Your task to perform on an android device: Show me recent news Image 0: 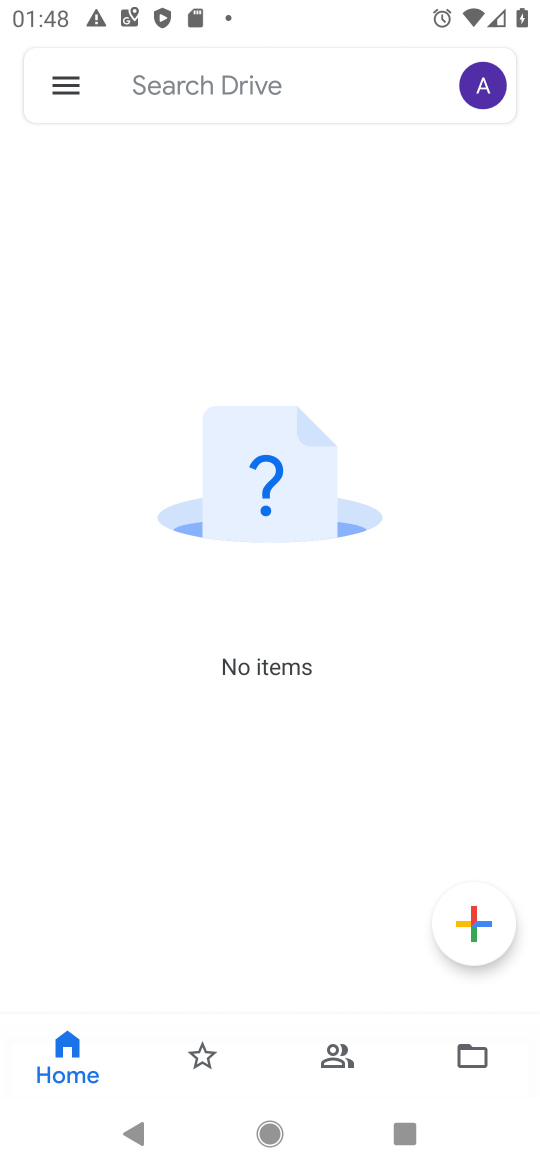
Step 0: press home button
Your task to perform on an android device: Show me recent news Image 1: 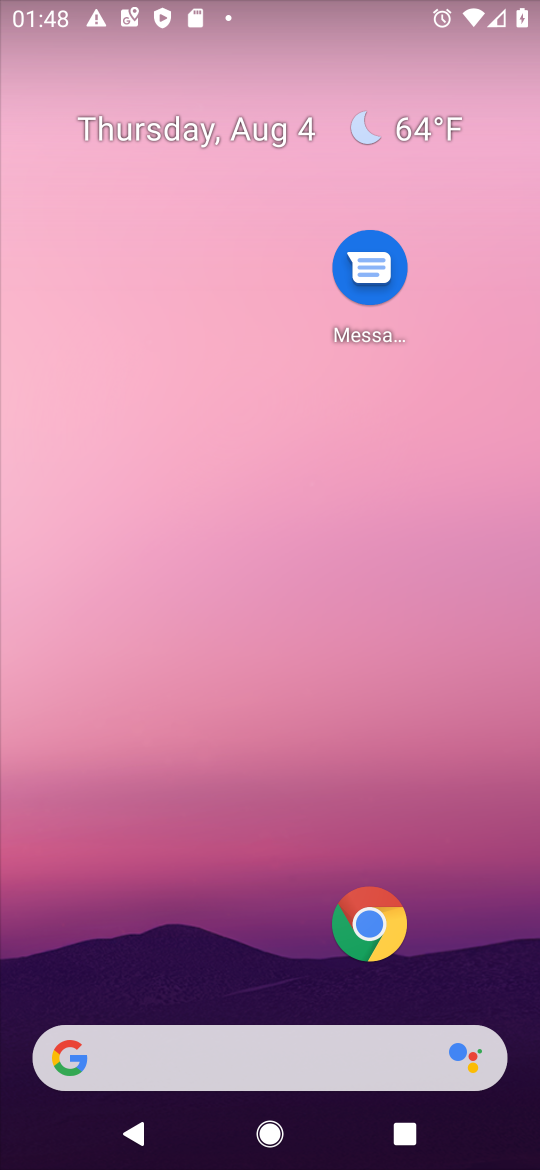
Step 1: click (124, 1041)
Your task to perform on an android device: Show me recent news Image 2: 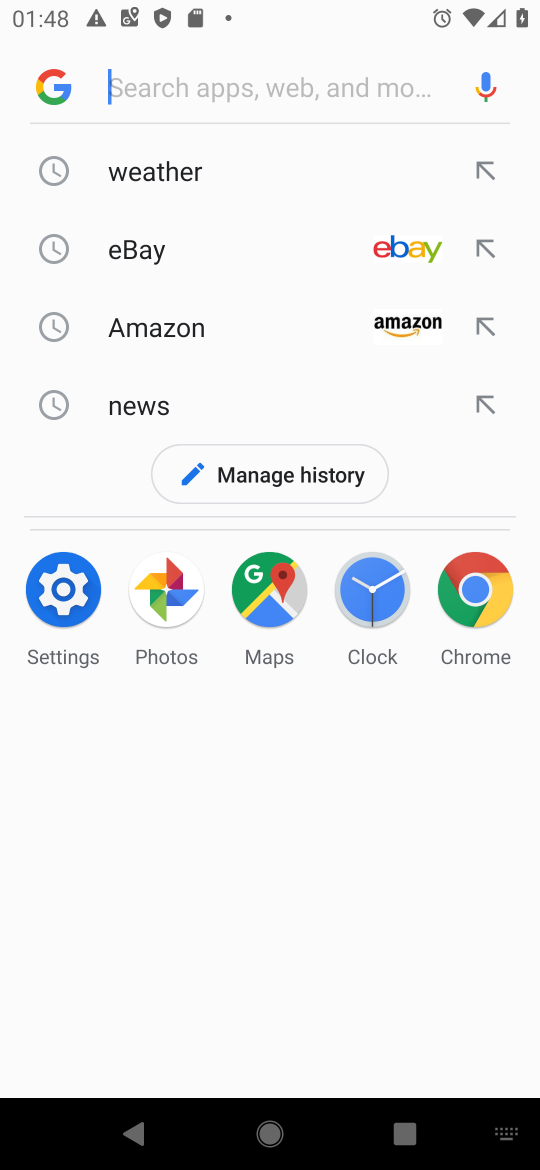
Step 2: type " recent news"
Your task to perform on an android device: Show me recent news Image 3: 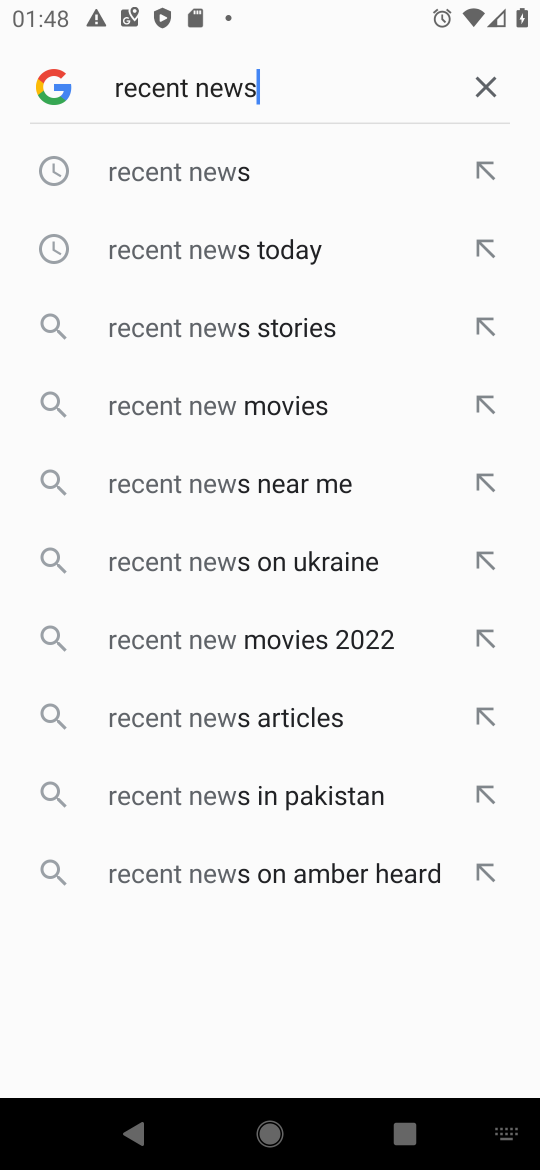
Step 3: type ""
Your task to perform on an android device: Show me recent news Image 4: 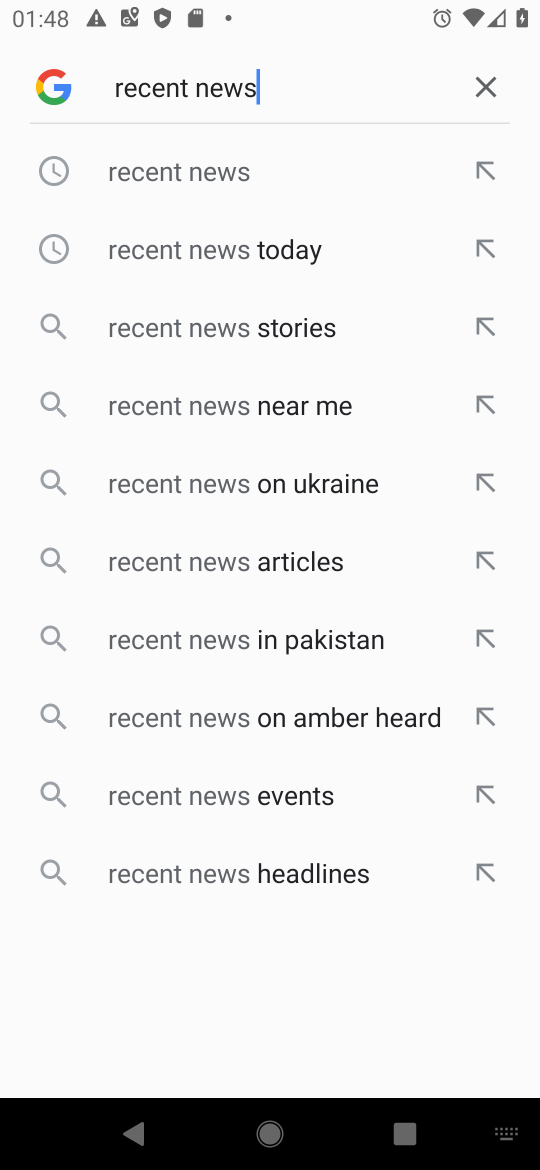
Step 4: click (144, 166)
Your task to perform on an android device: Show me recent news Image 5: 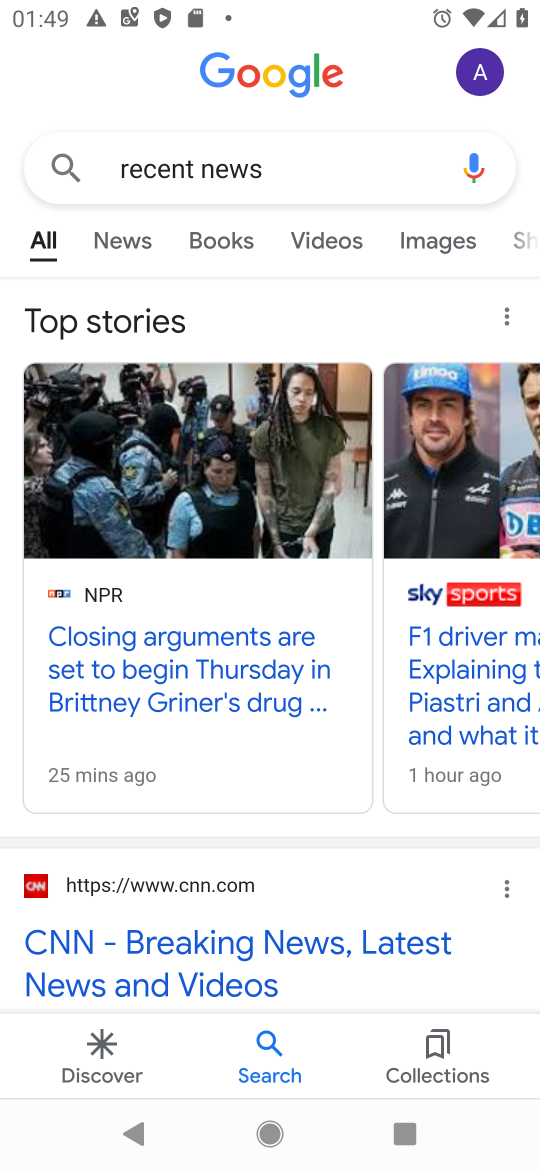
Step 5: task complete